Your task to perform on an android device: change the clock style Image 0: 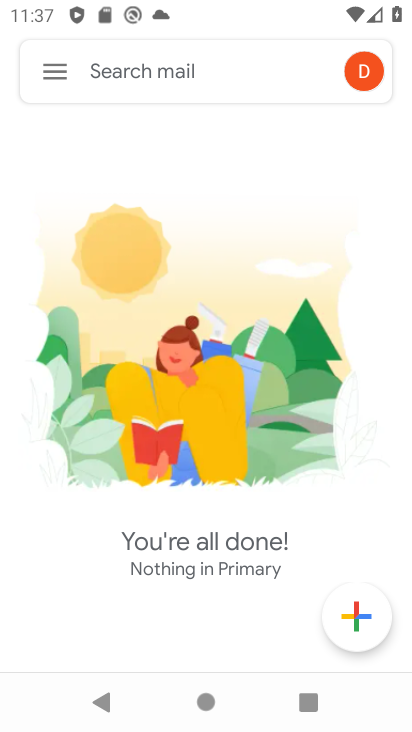
Step 0: press home button
Your task to perform on an android device: change the clock style Image 1: 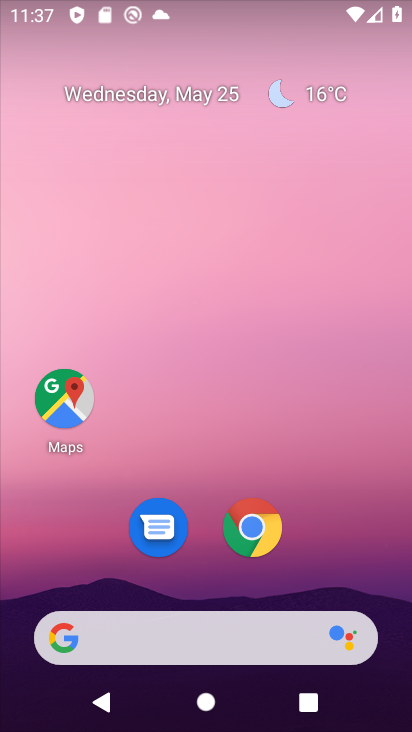
Step 1: drag from (360, 509) to (358, 3)
Your task to perform on an android device: change the clock style Image 2: 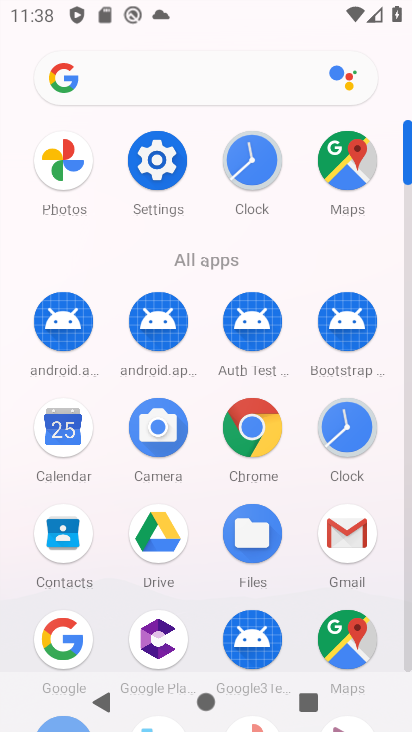
Step 2: click (254, 179)
Your task to perform on an android device: change the clock style Image 3: 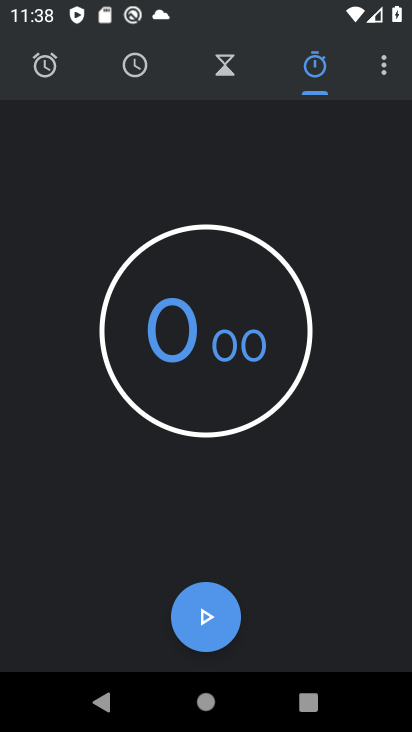
Step 3: click (377, 62)
Your task to perform on an android device: change the clock style Image 4: 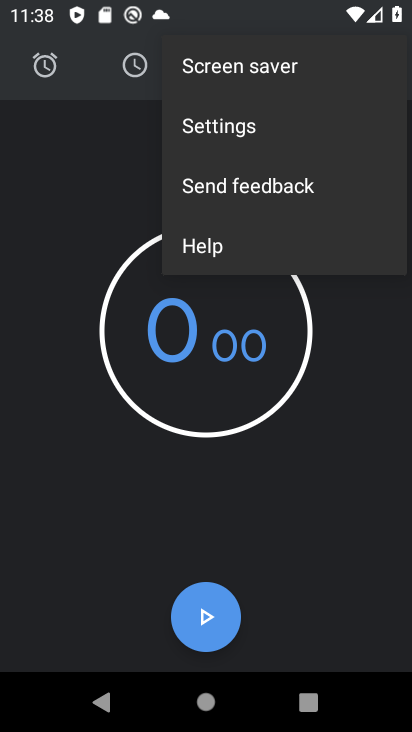
Step 4: click (210, 133)
Your task to perform on an android device: change the clock style Image 5: 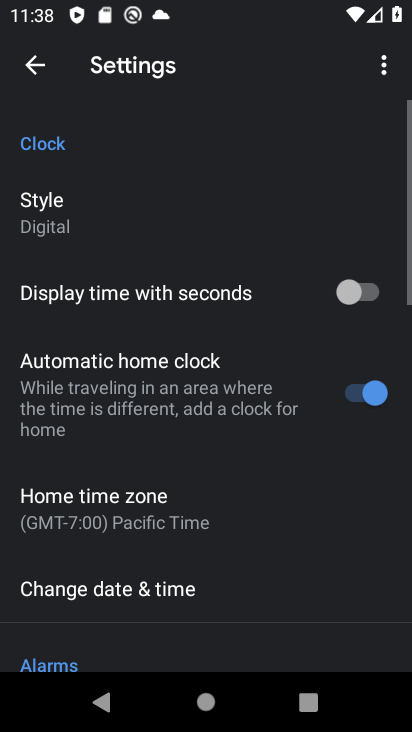
Step 5: click (65, 219)
Your task to perform on an android device: change the clock style Image 6: 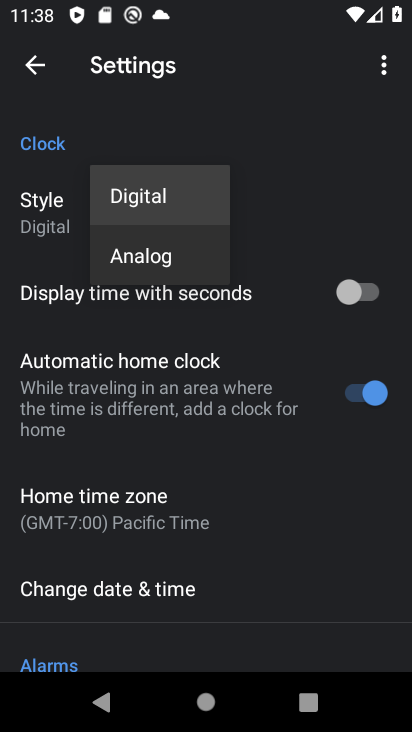
Step 6: click (137, 262)
Your task to perform on an android device: change the clock style Image 7: 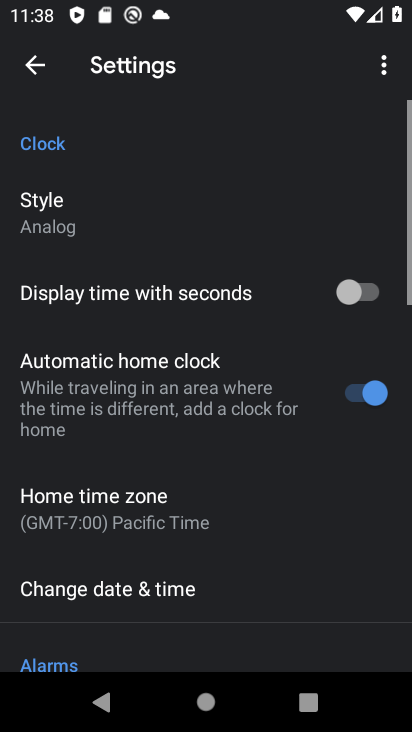
Step 7: task complete